Your task to perform on an android device: check out phone information Image 0: 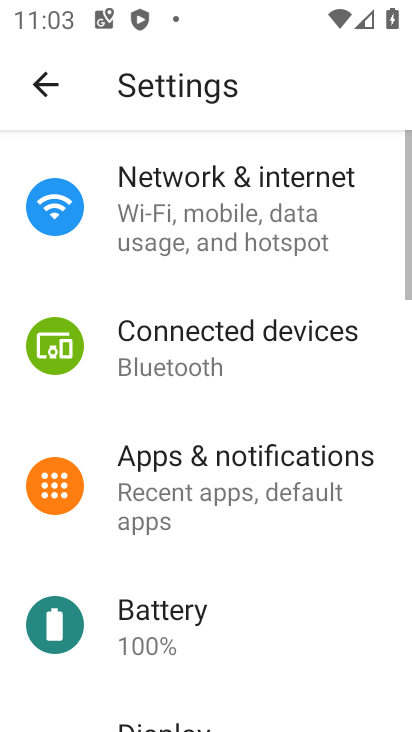
Step 0: press home button
Your task to perform on an android device: check out phone information Image 1: 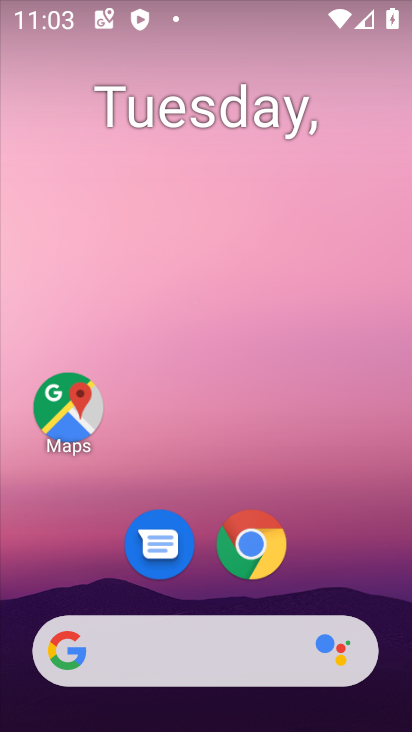
Step 1: drag from (401, 620) to (275, 46)
Your task to perform on an android device: check out phone information Image 2: 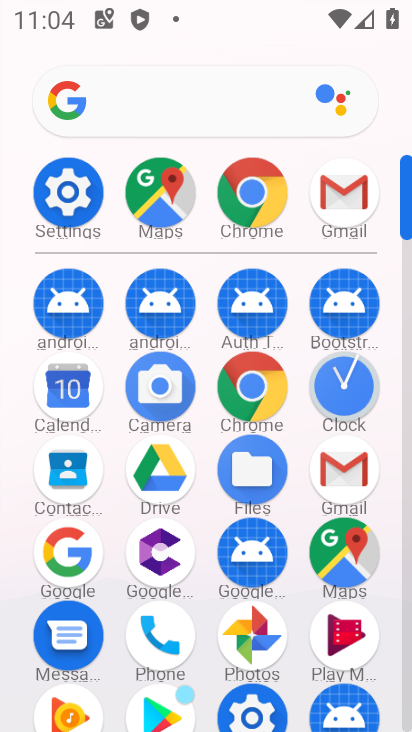
Step 2: click (72, 188)
Your task to perform on an android device: check out phone information Image 3: 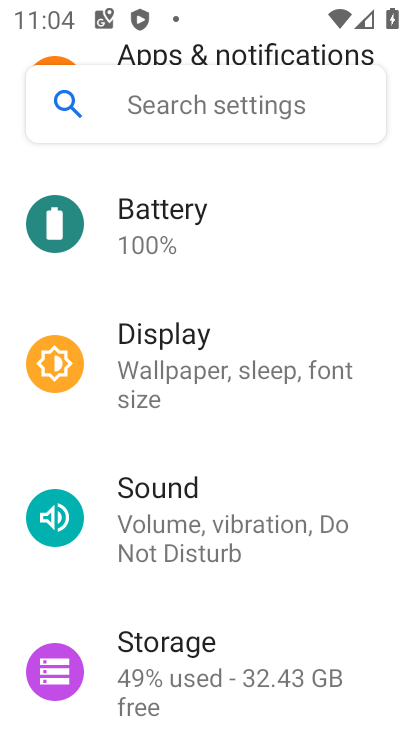
Step 3: drag from (216, 629) to (202, 98)
Your task to perform on an android device: check out phone information Image 4: 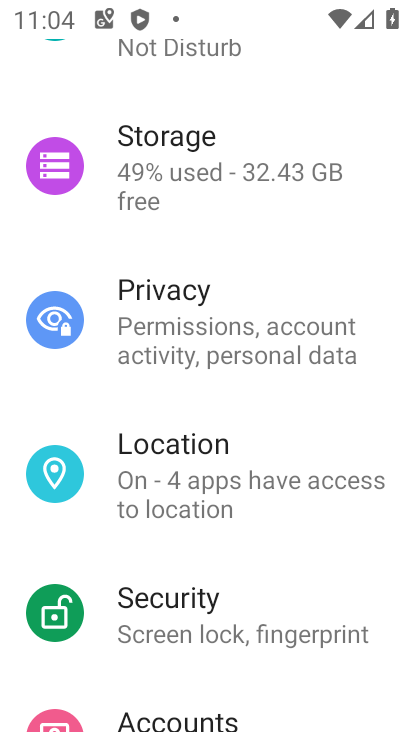
Step 4: drag from (183, 628) to (220, 17)
Your task to perform on an android device: check out phone information Image 5: 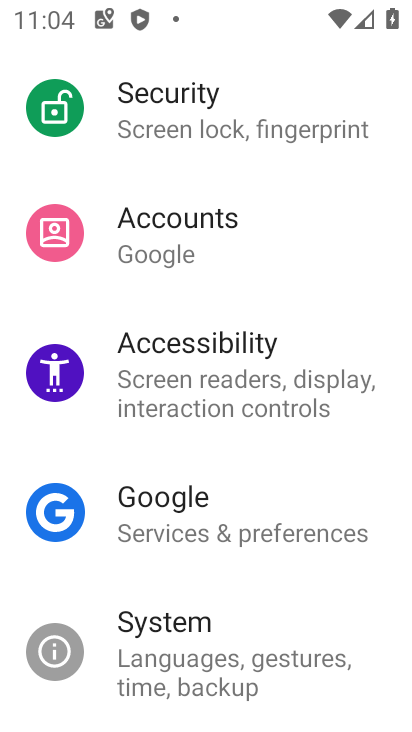
Step 5: drag from (197, 705) to (234, 63)
Your task to perform on an android device: check out phone information Image 6: 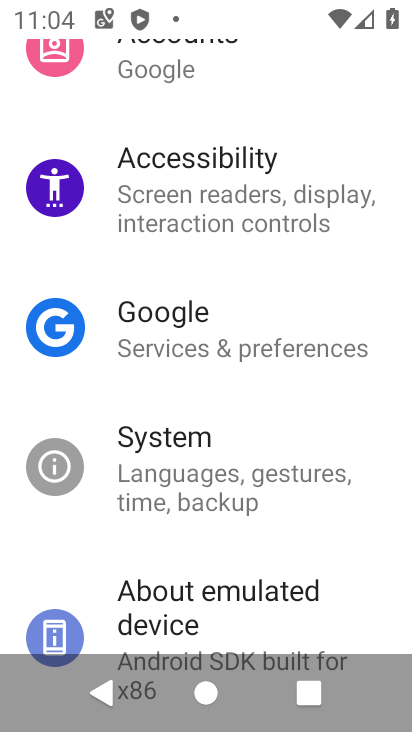
Step 6: drag from (272, 607) to (289, 65)
Your task to perform on an android device: check out phone information Image 7: 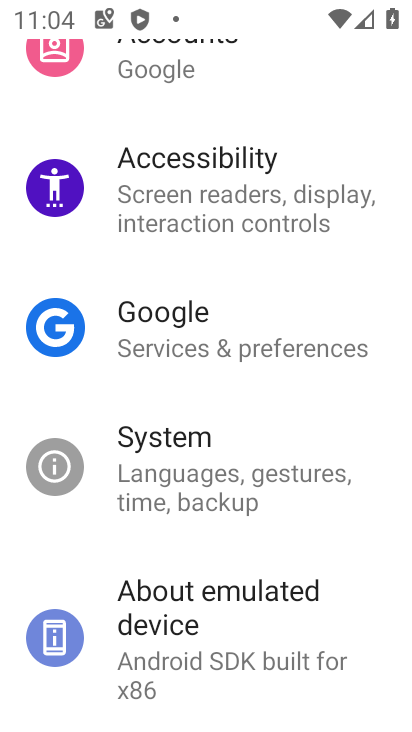
Step 7: click (247, 583)
Your task to perform on an android device: check out phone information Image 8: 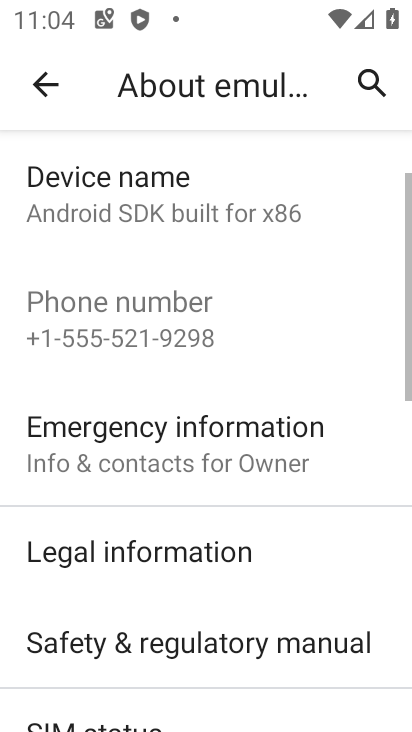
Step 8: click (247, 583)
Your task to perform on an android device: check out phone information Image 9: 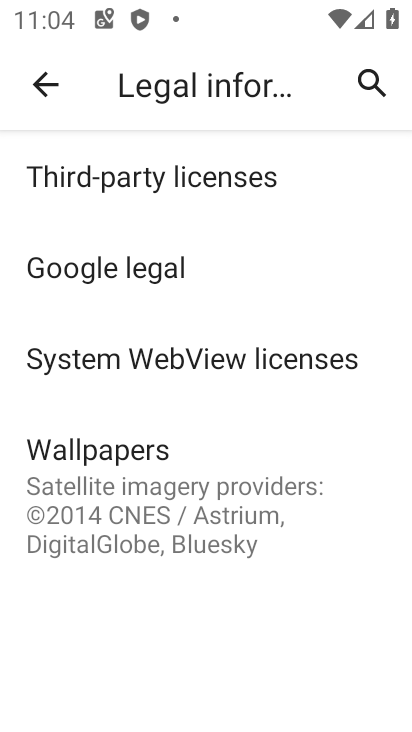
Step 9: task complete